Your task to perform on an android device: Open calendar and show me the fourth week of next month Image 0: 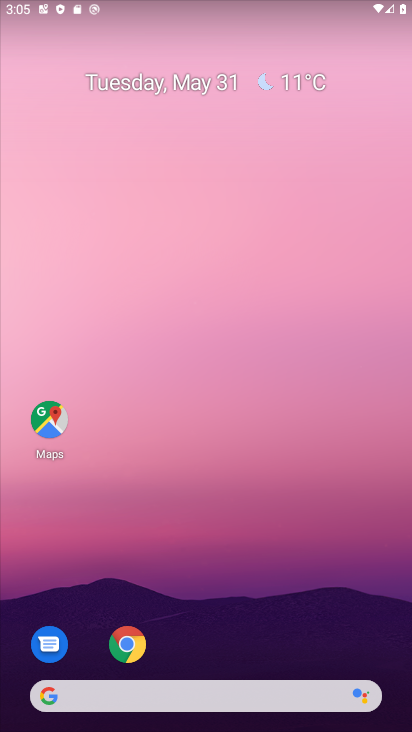
Step 0: drag from (254, 557) to (247, 131)
Your task to perform on an android device: Open calendar and show me the fourth week of next month Image 1: 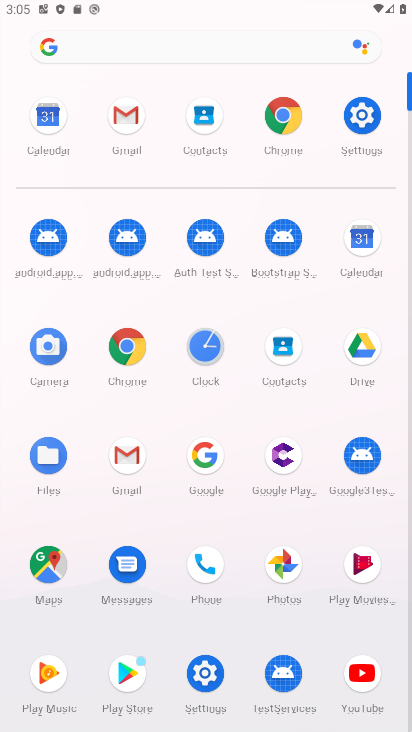
Step 1: click (368, 234)
Your task to perform on an android device: Open calendar and show me the fourth week of next month Image 2: 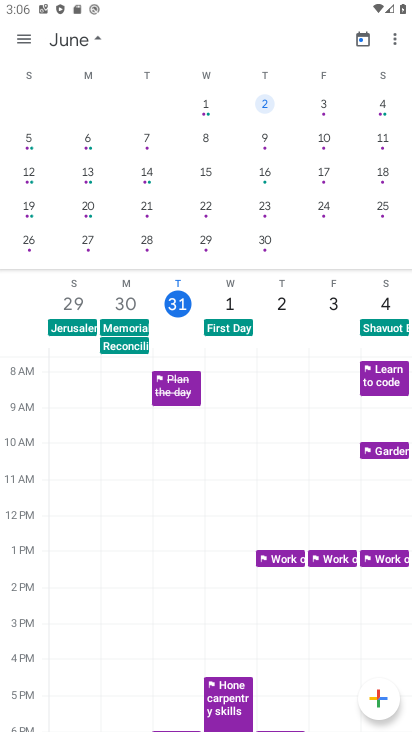
Step 2: click (264, 205)
Your task to perform on an android device: Open calendar and show me the fourth week of next month Image 3: 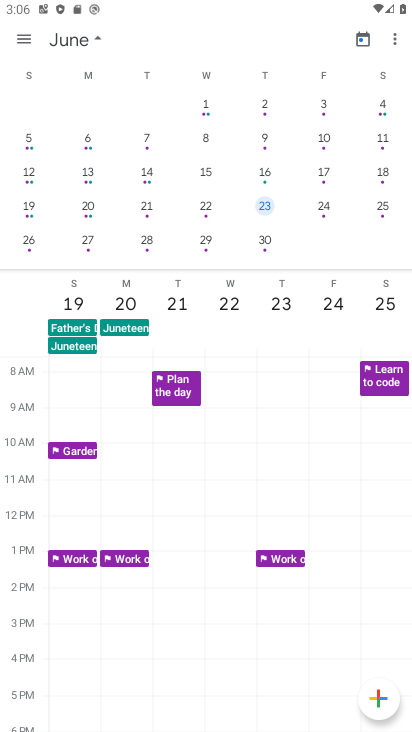
Step 3: task complete